Your task to perform on an android device: delete location history Image 0: 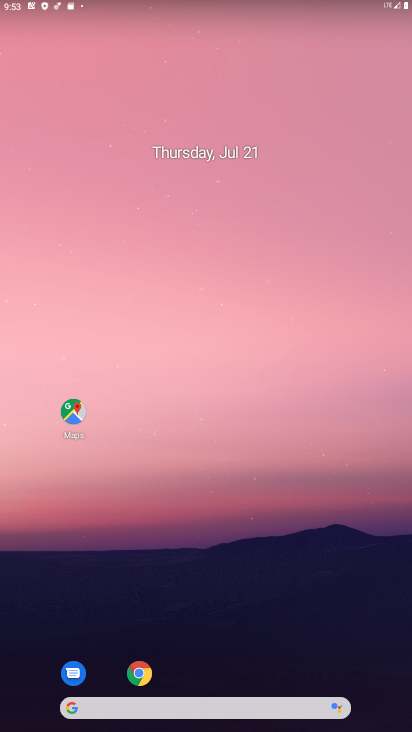
Step 0: click (228, 656)
Your task to perform on an android device: delete location history Image 1: 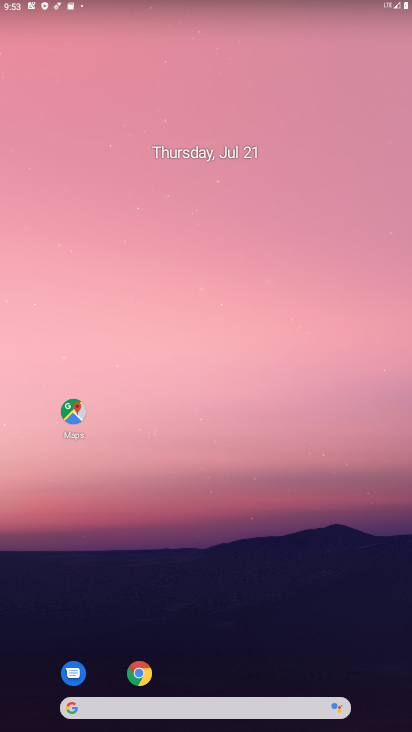
Step 1: click (68, 404)
Your task to perform on an android device: delete location history Image 2: 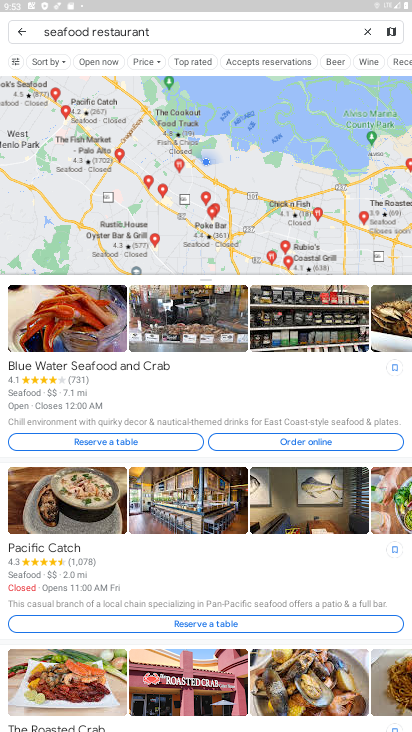
Step 2: click (26, 30)
Your task to perform on an android device: delete location history Image 3: 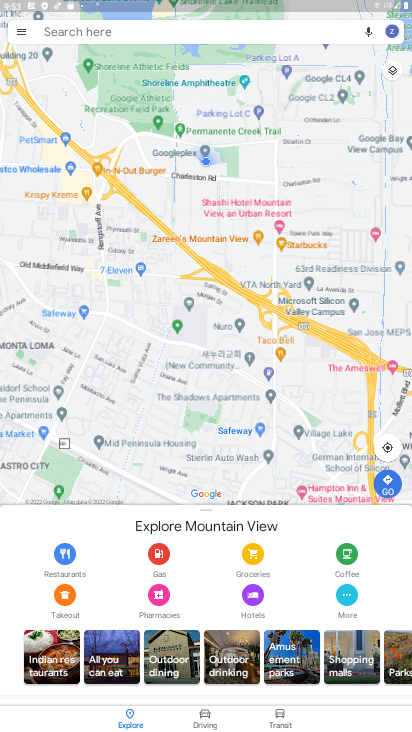
Step 3: click (26, 30)
Your task to perform on an android device: delete location history Image 4: 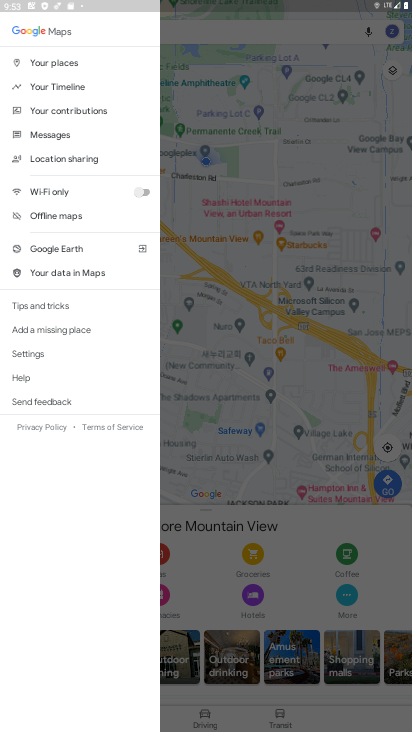
Step 4: click (88, 85)
Your task to perform on an android device: delete location history Image 5: 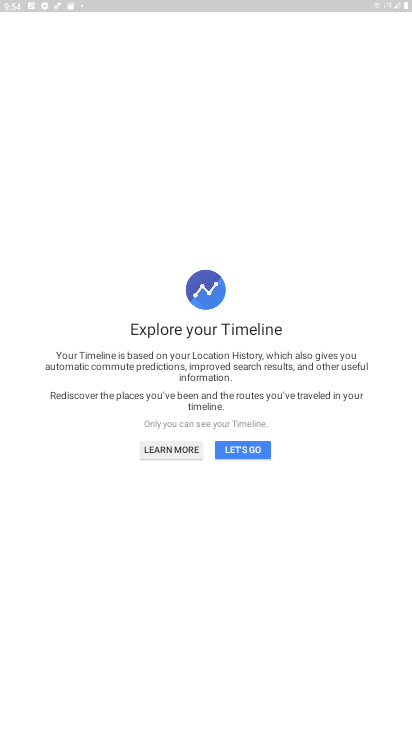
Step 5: click (234, 452)
Your task to perform on an android device: delete location history Image 6: 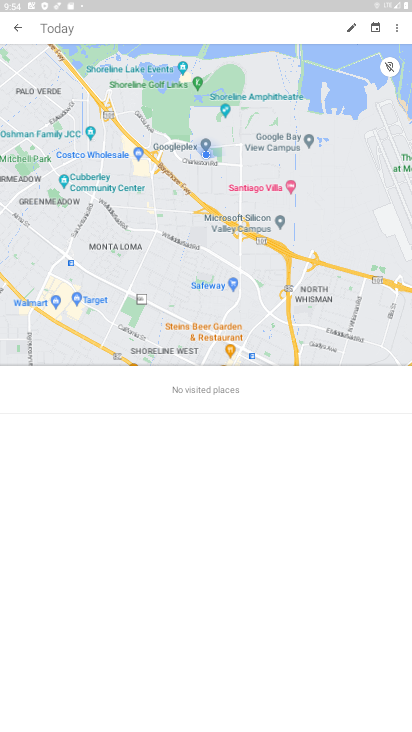
Step 6: click (394, 22)
Your task to perform on an android device: delete location history Image 7: 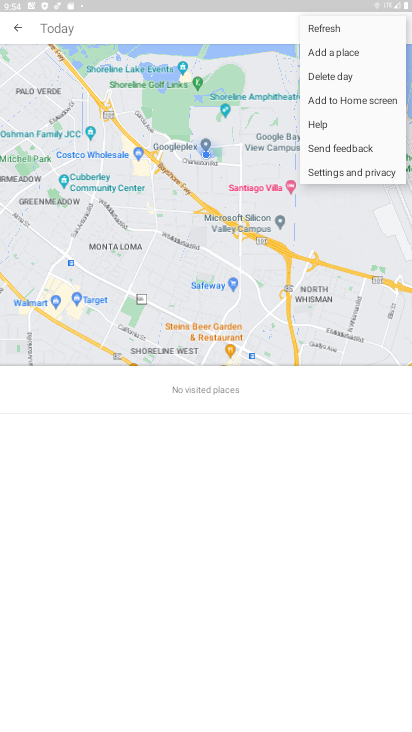
Step 7: click (351, 173)
Your task to perform on an android device: delete location history Image 8: 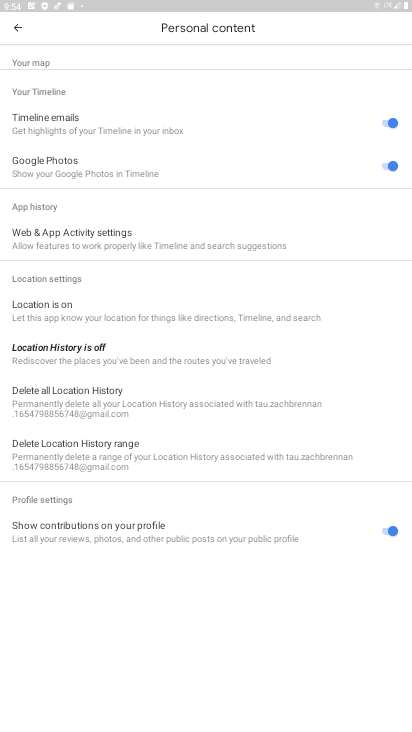
Step 8: click (126, 402)
Your task to perform on an android device: delete location history Image 9: 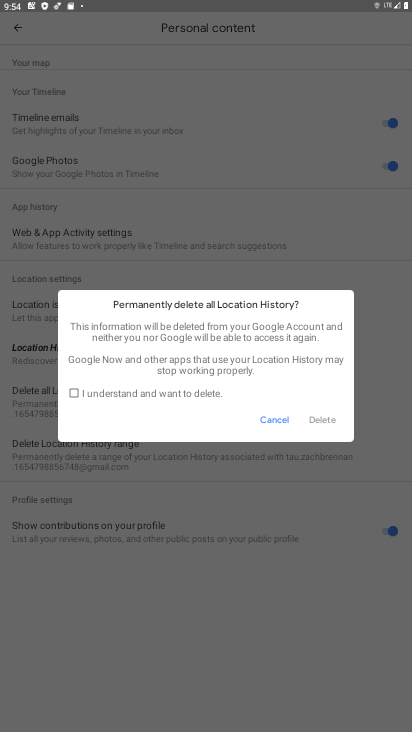
Step 9: click (84, 391)
Your task to perform on an android device: delete location history Image 10: 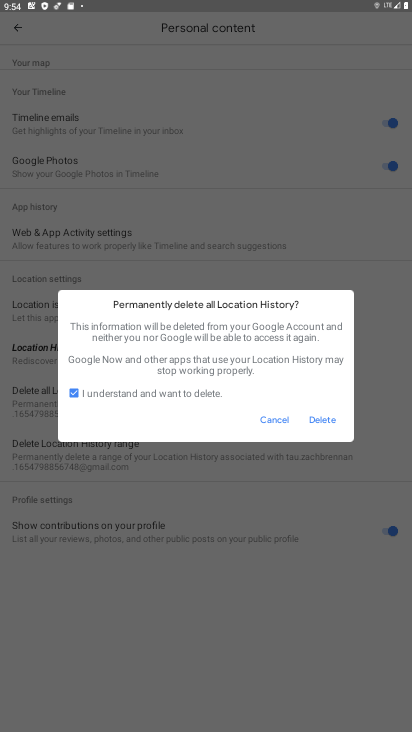
Step 10: click (316, 424)
Your task to perform on an android device: delete location history Image 11: 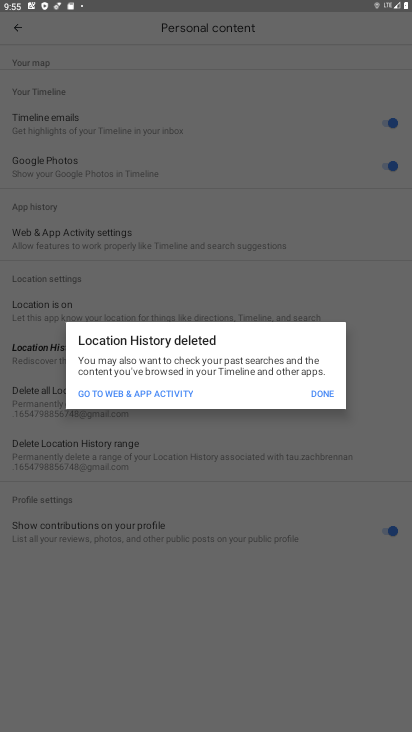
Step 11: click (314, 400)
Your task to perform on an android device: delete location history Image 12: 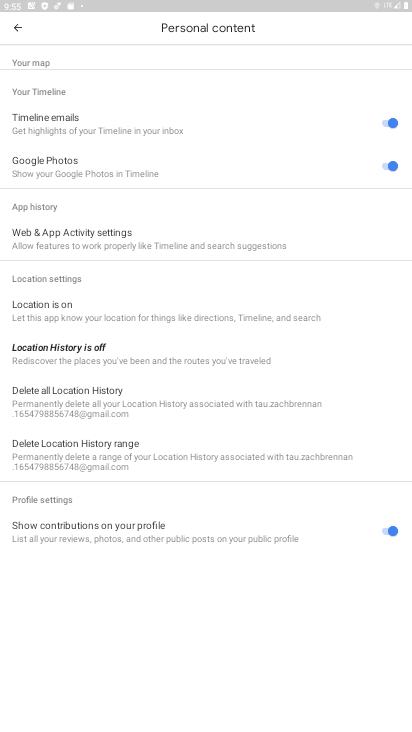
Step 12: task complete